Your task to perform on an android device: delete location history Image 0: 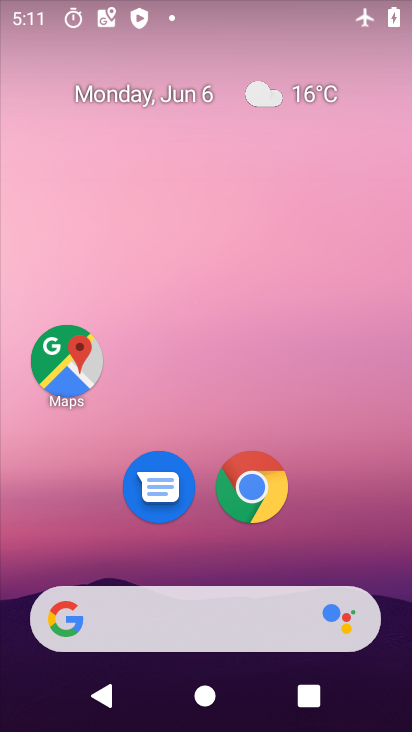
Step 0: drag from (330, 497) to (303, 114)
Your task to perform on an android device: delete location history Image 1: 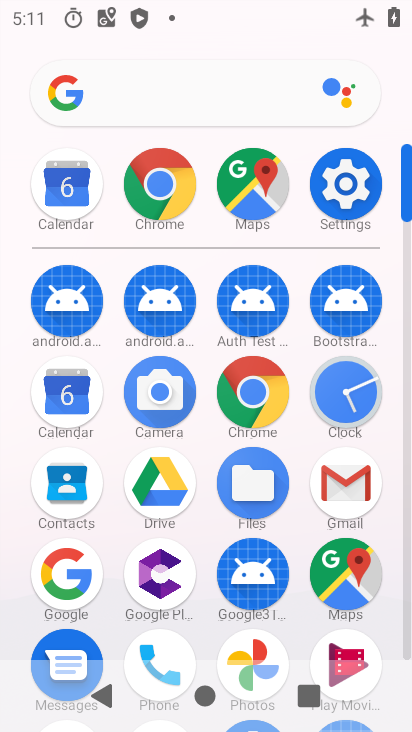
Step 1: click (253, 193)
Your task to perform on an android device: delete location history Image 2: 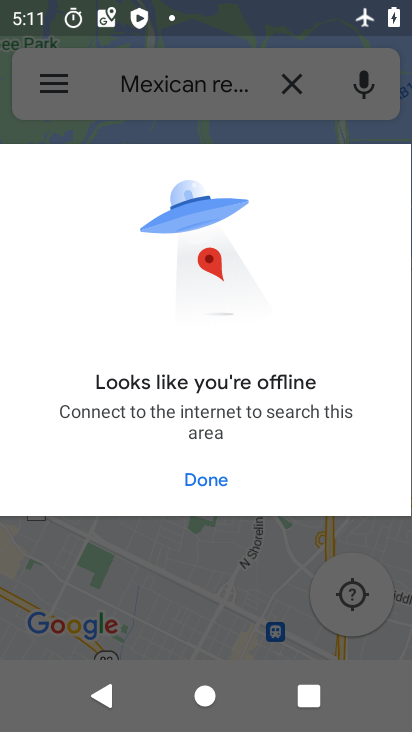
Step 2: click (209, 473)
Your task to perform on an android device: delete location history Image 3: 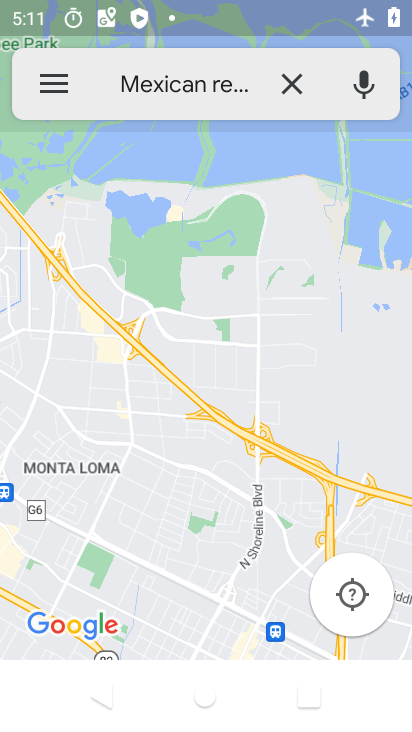
Step 3: click (58, 85)
Your task to perform on an android device: delete location history Image 4: 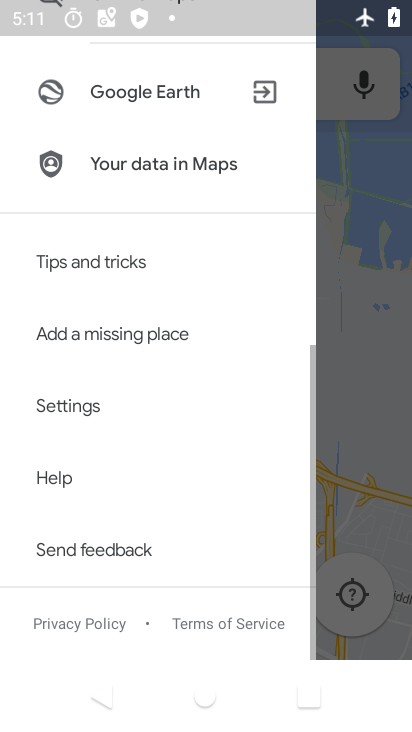
Step 4: drag from (174, 569) to (183, 341)
Your task to perform on an android device: delete location history Image 5: 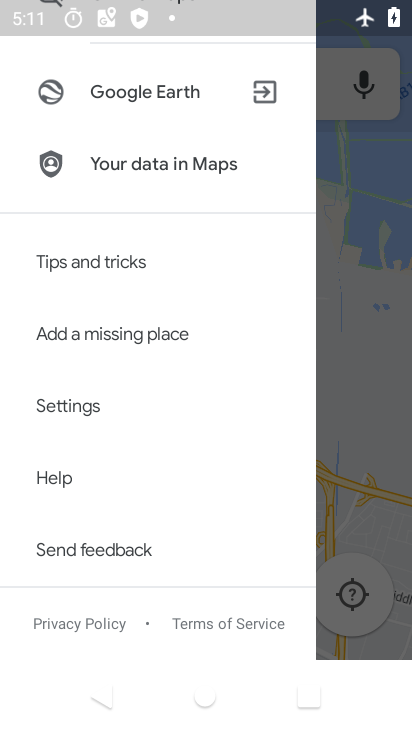
Step 5: click (94, 388)
Your task to perform on an android device: delete location history Image 6: 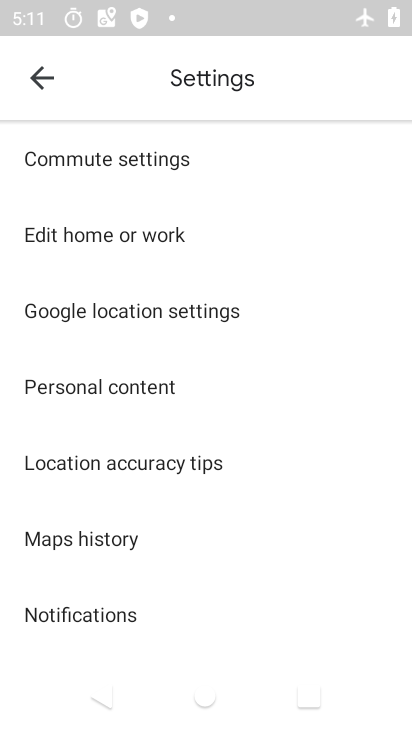
Step 6: click (107, 522)
Your task to perform on an android device: delete location history Image 7: 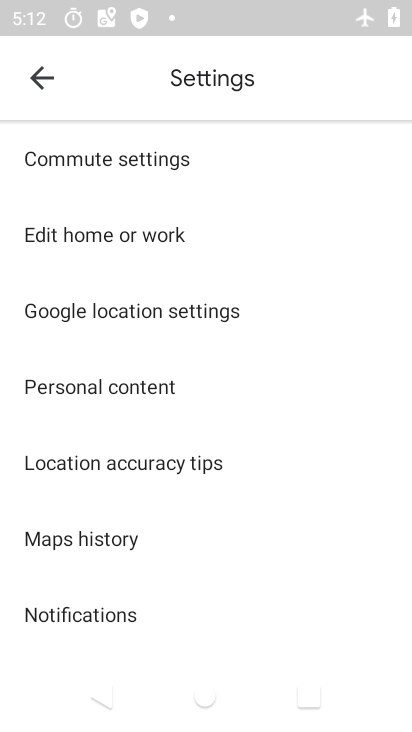
Step 7: click (111, 534)
Your task to perform on an android device: delete location history Image 8: 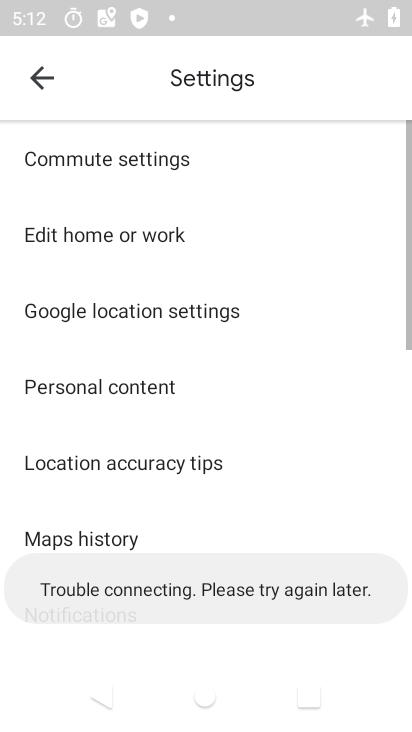
Step 8: task complete